Your task to perform on an android device: Do I have any events tomorrow? Image 0: 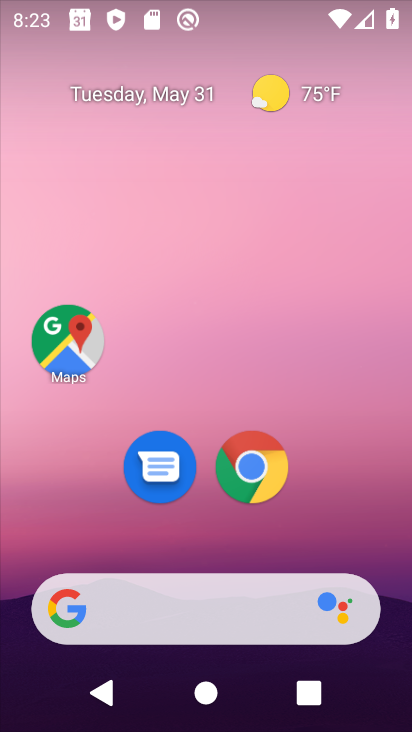
Step 0: drag from (213, 563) to (243, 101)
Your task to perform on an android device: Do I have any events tomorrow? Image 1: 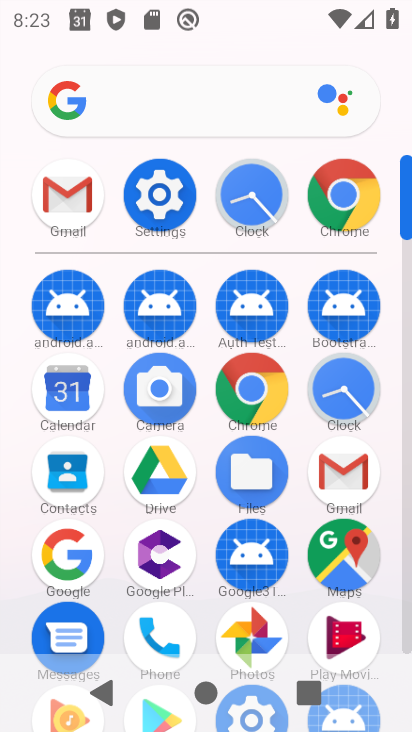
Step 1: click (59, 405)
Your task to perform on an android device: Do I have any events tomorrow? Image 2: 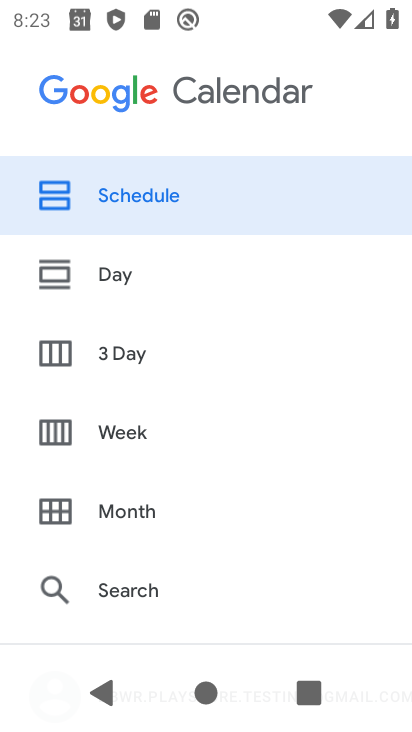
Step 2: click (238, 206)
Your task to perform on an android device: Do I have any events tomorrow? Image 3: 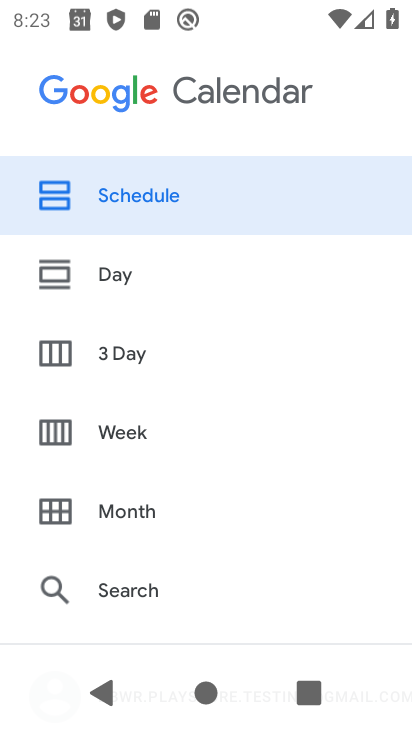
Step 3: press back button
Your task to perform on an android device: Do I have any events tomorrow? Image 4: 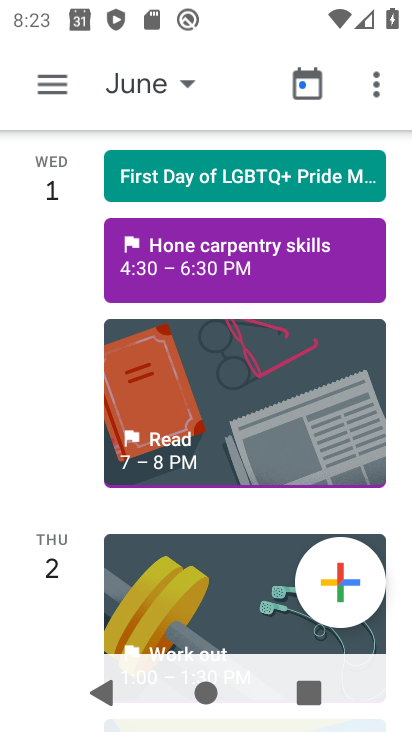
Step 4: click (169, 87)
Your task to perform on an android device: Do I have any events tomorrow? Image 5: 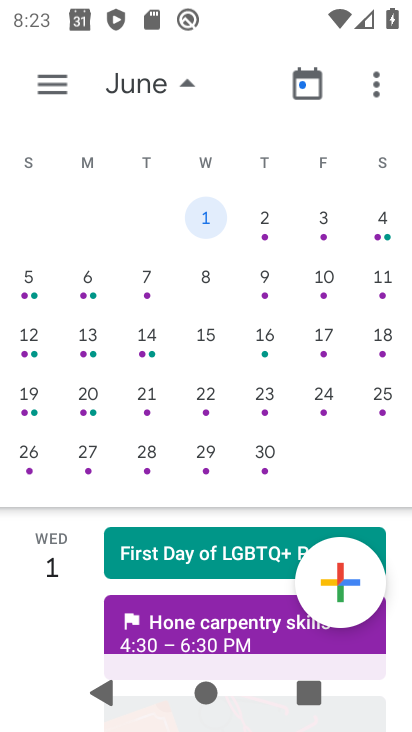
Step 5: click (269, 220)
Your task to perform on an android device: Do I have any events tomorrow? Image 6: 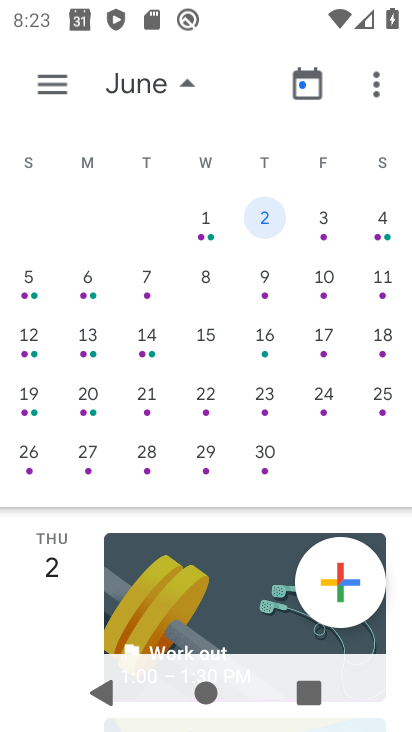
Step 6: task complete